Your task to perform on an android device: Go to Wikipedia Image 0: 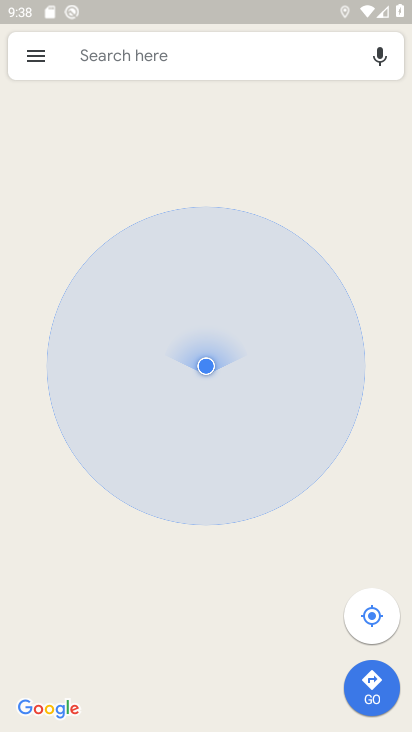
Step 0: press home button
Your task to perform on an android device: Go to Wikipedia Image 1: 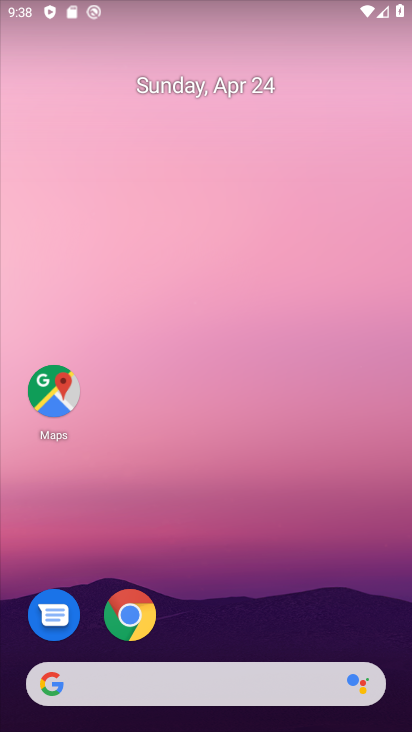
Step 1: click (129, 610)
Your task to perform on an android device: Go to Wikipedia Image 2: 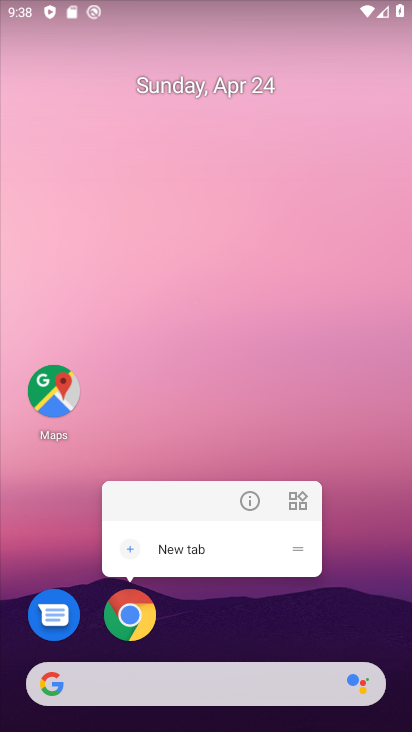
Step 2: click (129, 610)
Your task to perform on an android device: Go to Wikipedia Image 3: 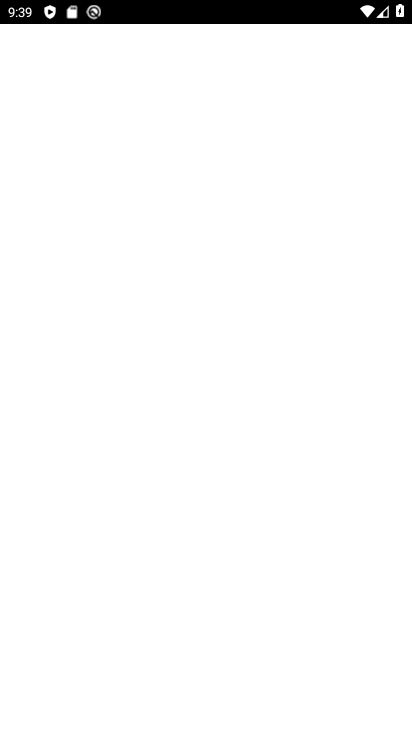
Step 3: click (129, 610)
Your task to perform on an android device: Go to Wikipedia Image 4: 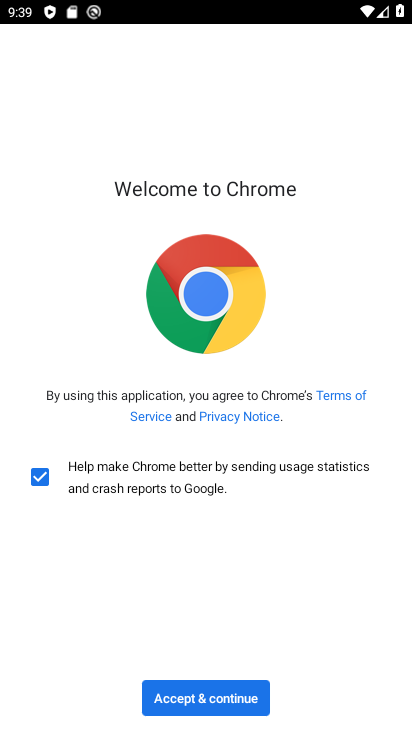
Step 4: click (202, 694)
Your task to perform on an android device: Go to Wikipedia Image 5: 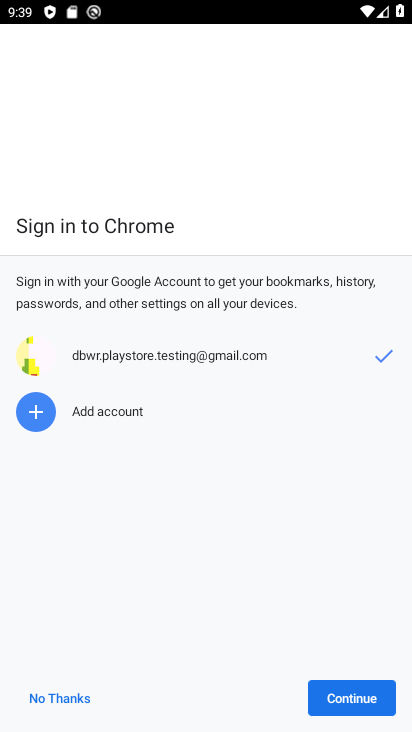
Step 5: click (352, 694)
Your task to perform on an android device: Go to Wikipedia Image 6: 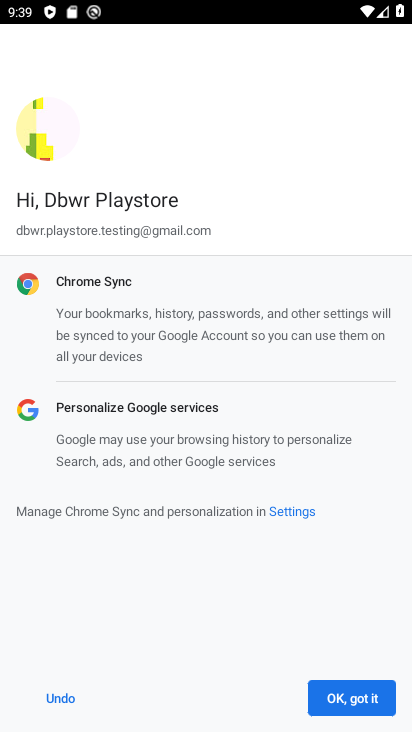
Step 6: click (349, 697)
Your task to perform on an android device: Go to Wikipedia Image 7: 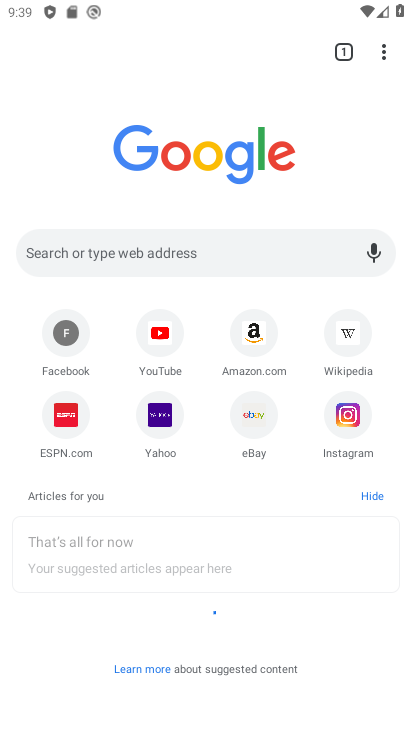
Step 7: click (339, 332)
Your task to perform on an android device: Go to Wikipedia Image 8: 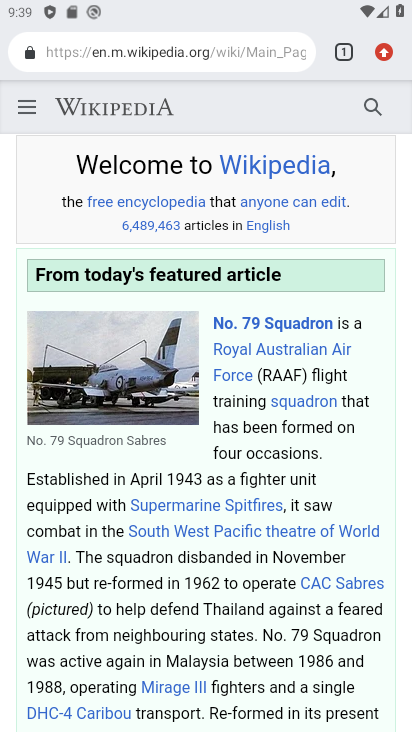
Step 8: task complete